Your task to perform on an android device: turn off improve location accuracy Image 0: 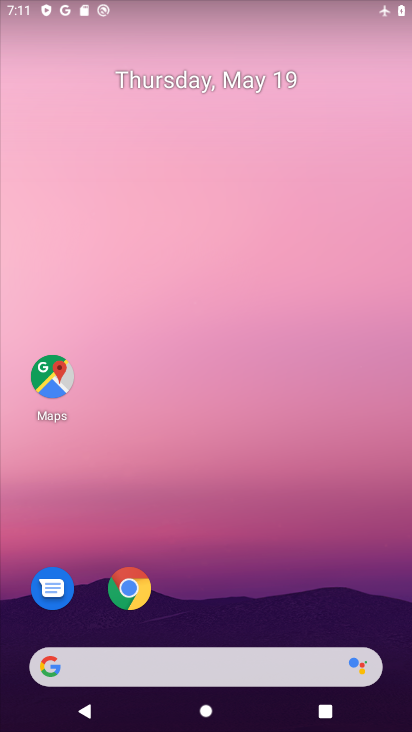
Step 0: drag from (327, 569) to (285, 2)
Your task to perform on an android device: turn off improve location accuracy Image 1: 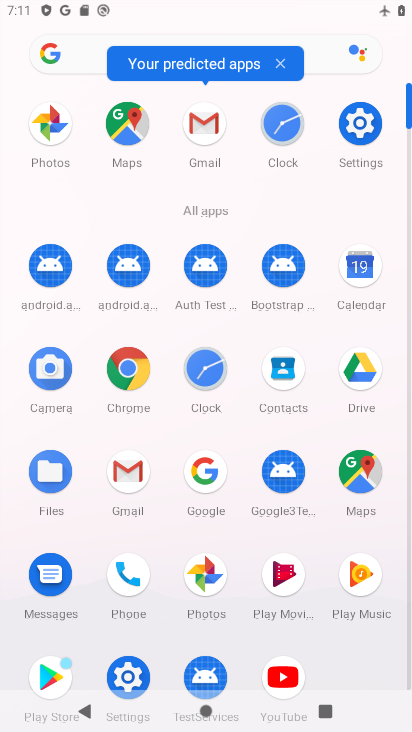
Step 1: click (363, 125)
Your task to perform on an android device: turn off improve location accuracy Image 2: 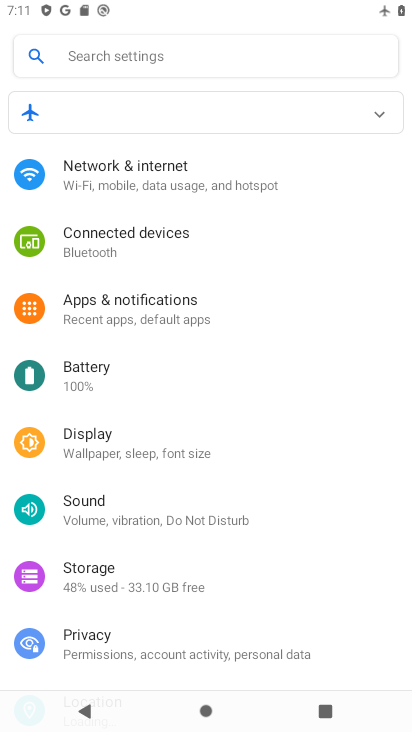
Step 2: drag from (191, 567) to (148, 263)
Your task to perform on an android device: turn off improve location accuracy Image 3: 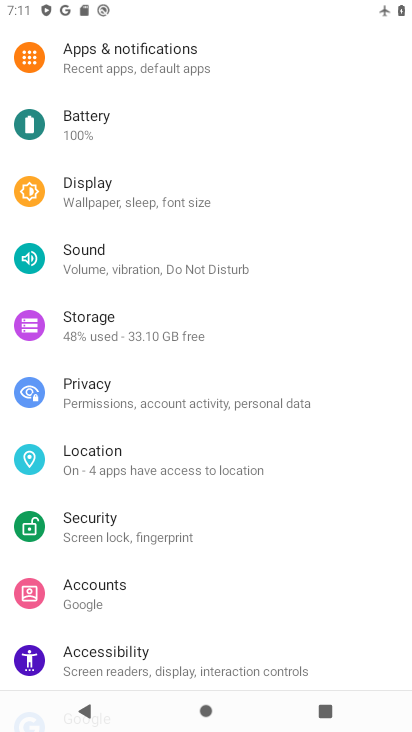
Step 3: click (101, 461)
Your task to perform on an android device: turn off improve location accuracy Image 4: 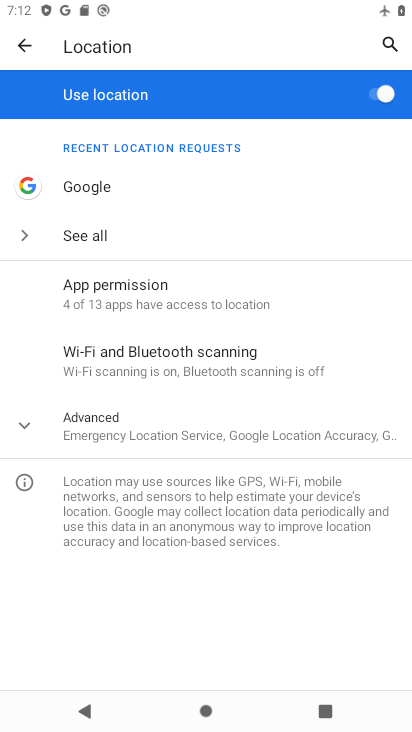
Step 4: click (158, 414)
Your task to perform on an android device: turn off improve location accuracy Image 5: 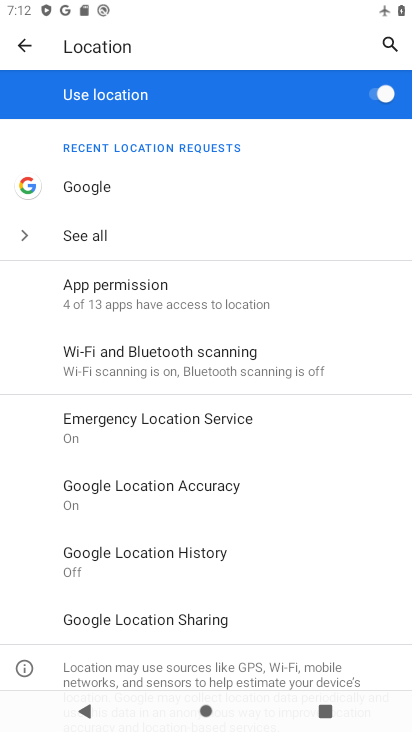
Step 5: click (184, 484)
Your task to perform on an android device: turn off improve location accuracy Image 6: 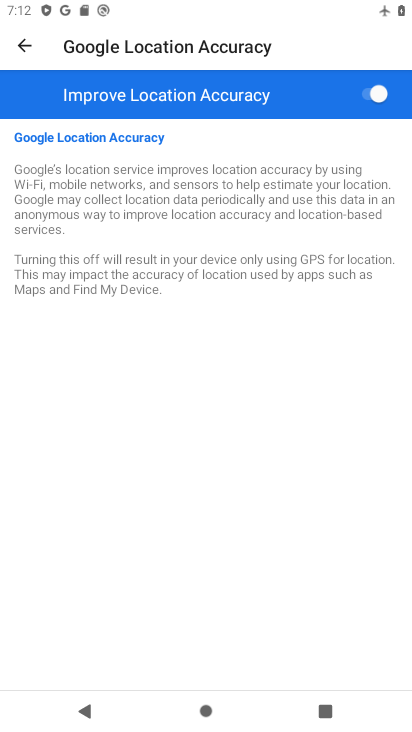
Step 6: click (383, 90)
Your task to perform on an android device: turn off improve location accuracy Image 7: 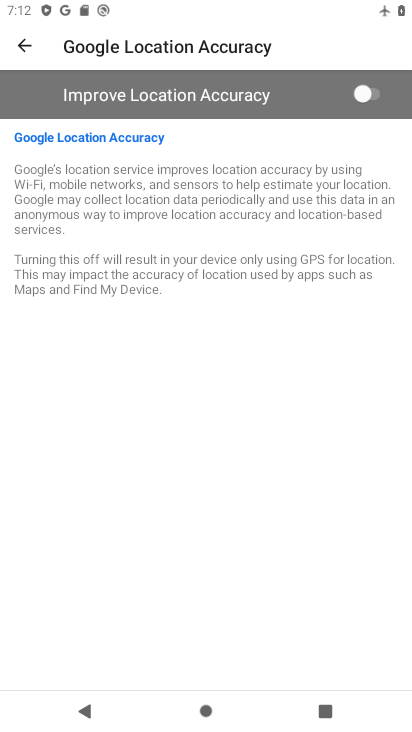
Step 7: task complete